Your task to perform on an android device: find which apps use the phone's location Image 0: 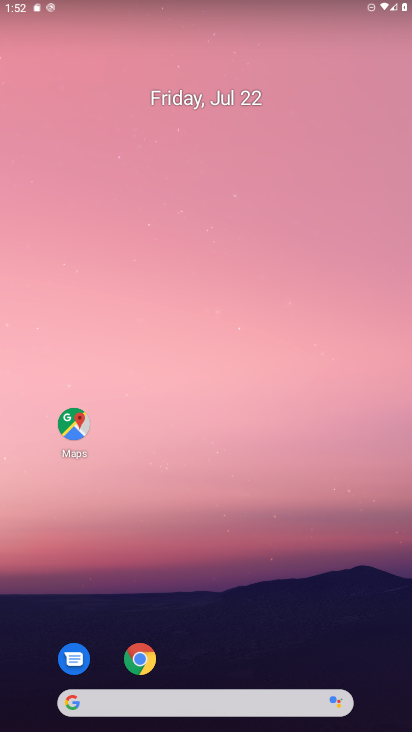
Step 0: drag from (189, 701) to (178, 266)
Your task to perform on an android device: find which apps use the phone's location Image 1: 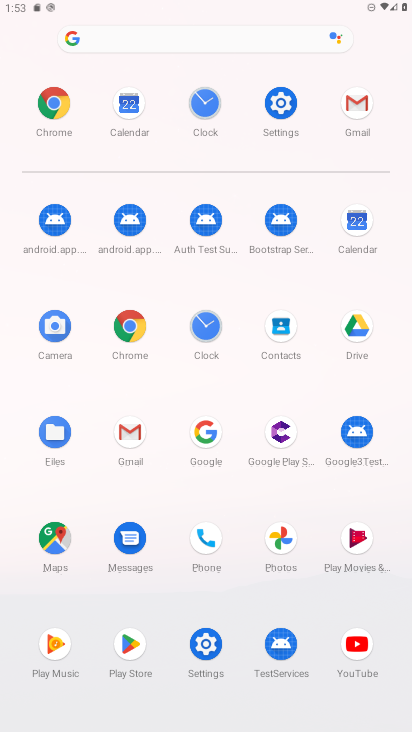
Step 1: click (206, 641)
Your task to perform on an android device: find which apps use the phone's location Image 2: 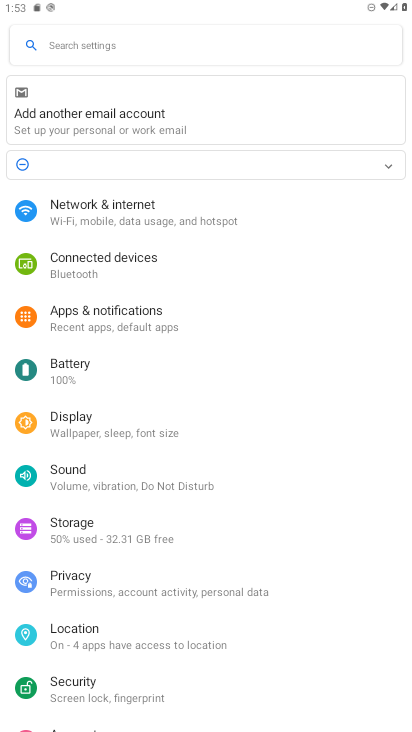
Step 2: drag from (112, 556) to (138, 458)
Your task to perform on an android device: find which apps use the phone's location Image 3: 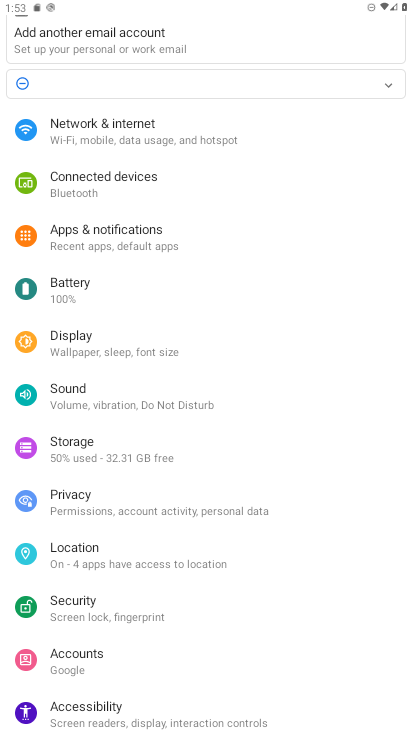
Step 3: click (102, 553)
Your task to perform on an android device: find which apps use the phone's location Image 4: 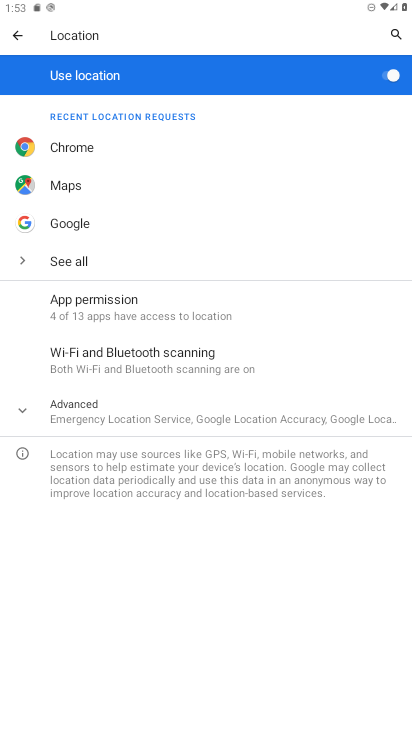
Step 4: click (135, 323)
Your task to perform on an android device: find which apps use the phone's location Image 5: 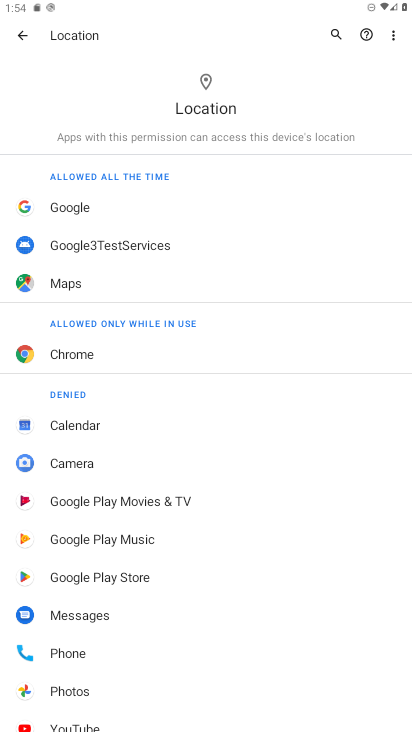
Step 5: click (66, 277)
Your task to perform on an android device: find which apps use the phone's location Image 6: 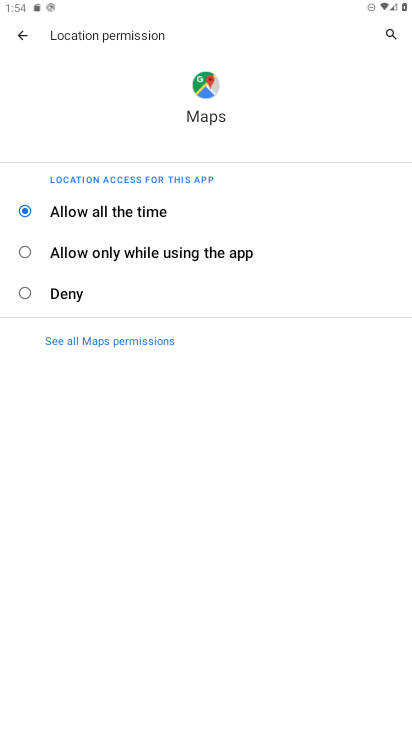
Step 6: task complete